Your task to perform on an android device: open a bookmark in the chrome app Image 0: 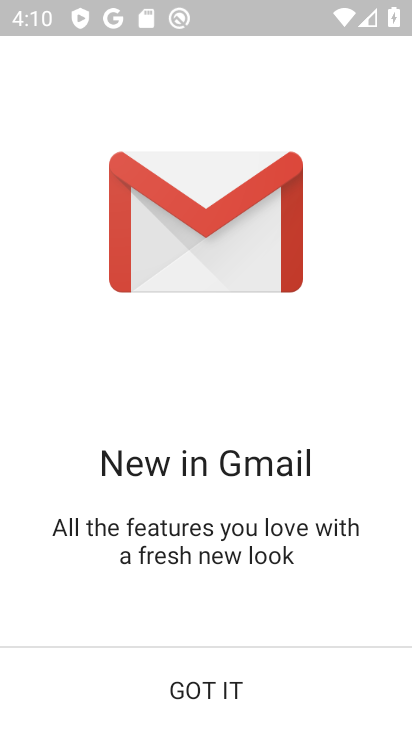
Step 0: press back button
Your task to perform on an android device: open a bookmark in the chrome app Image 1: 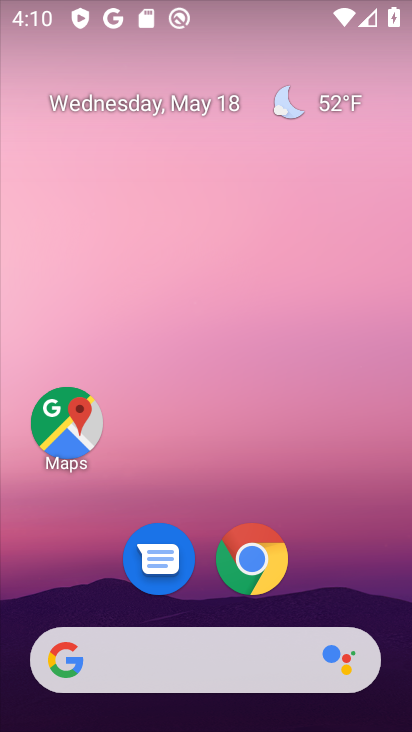
Step 1: click (263, 546)
Your task to perform on an android device: open a bookmark in the chrome app Image 2: 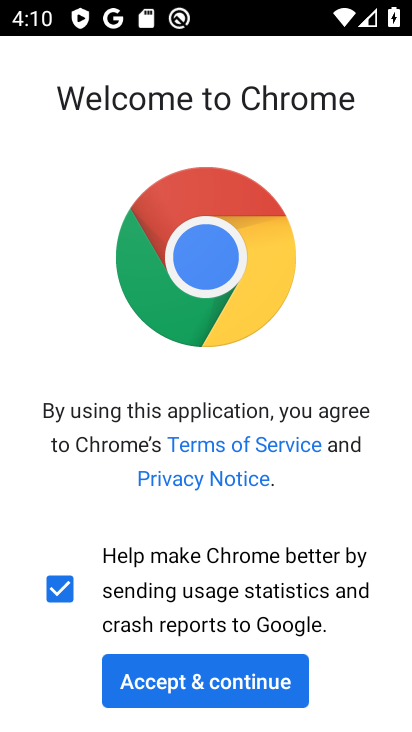
Step 2: click (198, 690)
Your task to perform on an android device: open a bookmark in the chrome app Image 3: 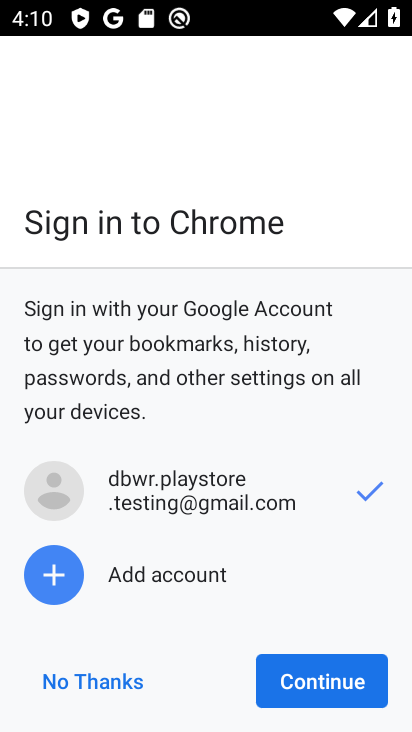
Step 3: click (379, 672)
Your task to perform on an android device: open a bookmark in the chrome app Image 4: 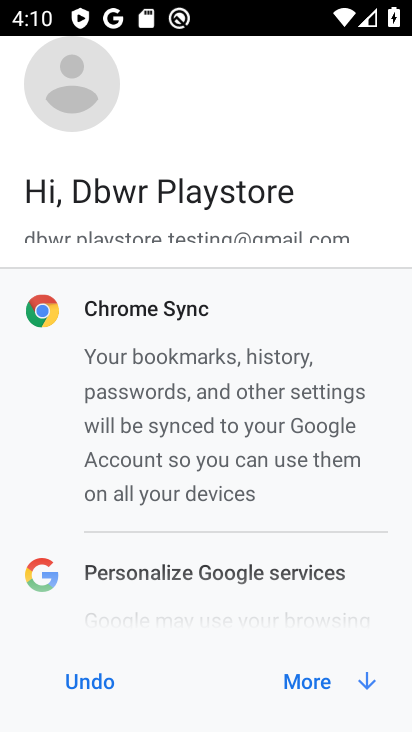
Step 4: click (339, 675)
Your task to perform on an android device: open a bookmark in the chrome app Image 5: 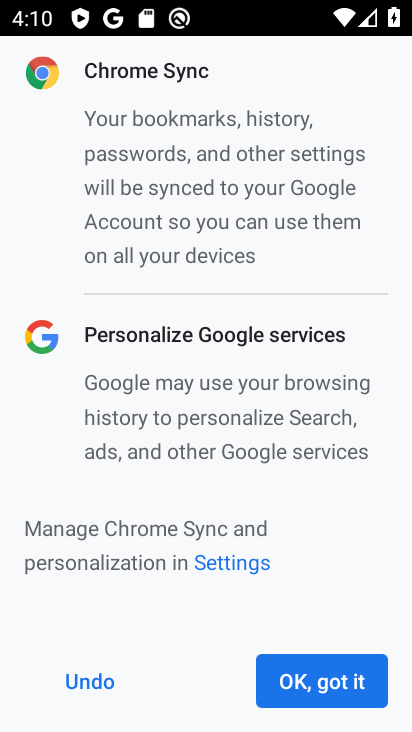
Step 5: click (339, 675)
Your task to perform on an android device: open a bookmark in the chrome app Image 6: 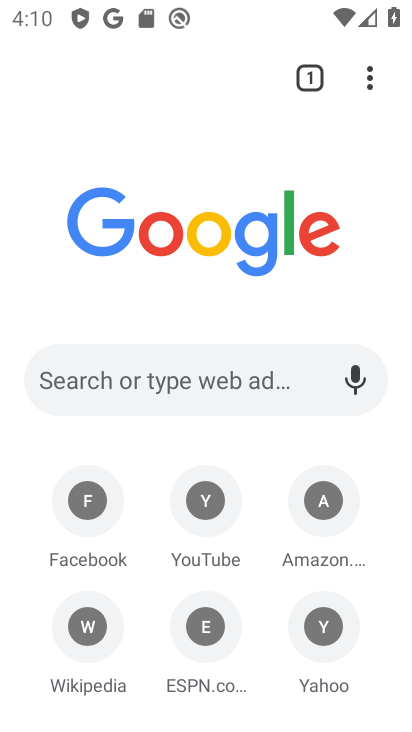
Step 6: task complete